Your task to perform on an android device: See recent photos Image 0: 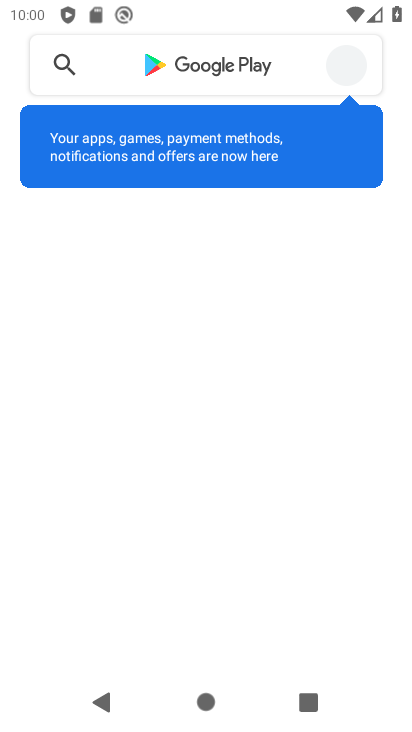
Step 0: press home button
Your task to perform on an android device: See recent photos Image 1: 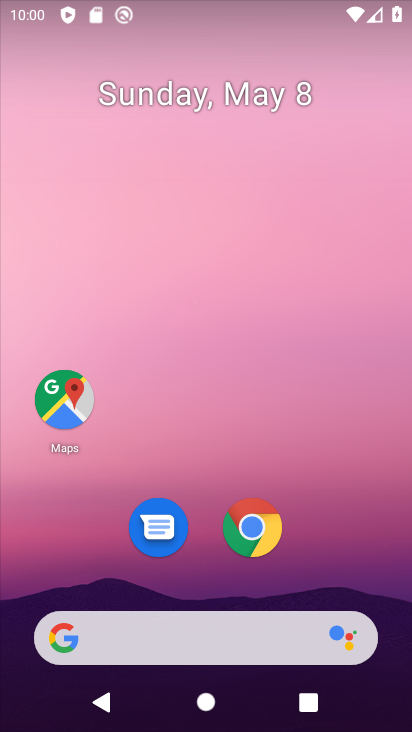
Step 1: drag from (306, 378) to (315, 123)
Your task to perform on an android device: See recent photos Image 2: 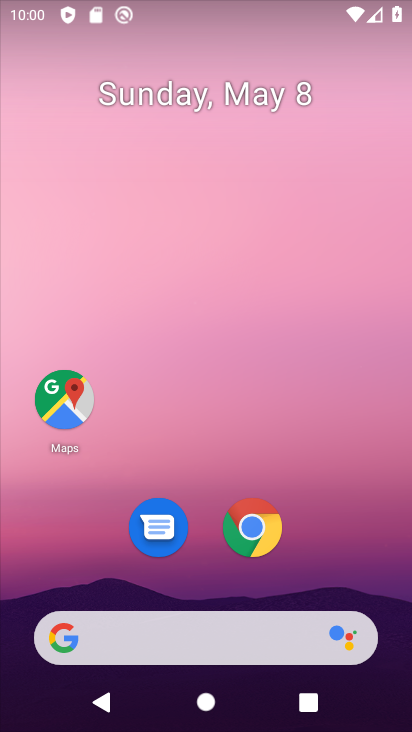
Step 2: drag from (334, 505) to (361, 247)
Your task to perform on an android device: See recent photos Image 3: 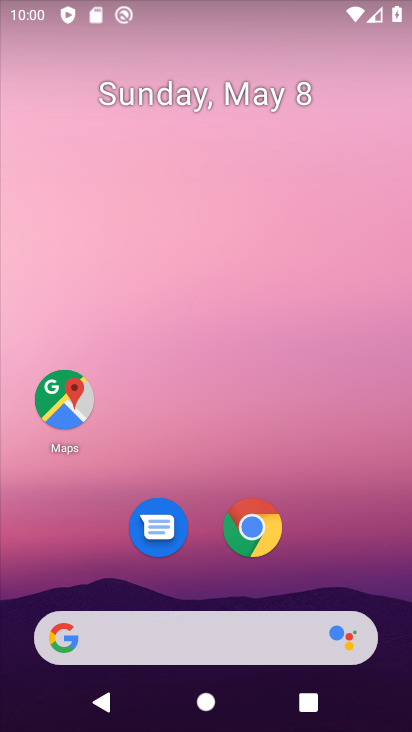
Step 3: drag from (299, 533) to (371, 68)
Your task to perform on an android device: See recent photos Image 4: 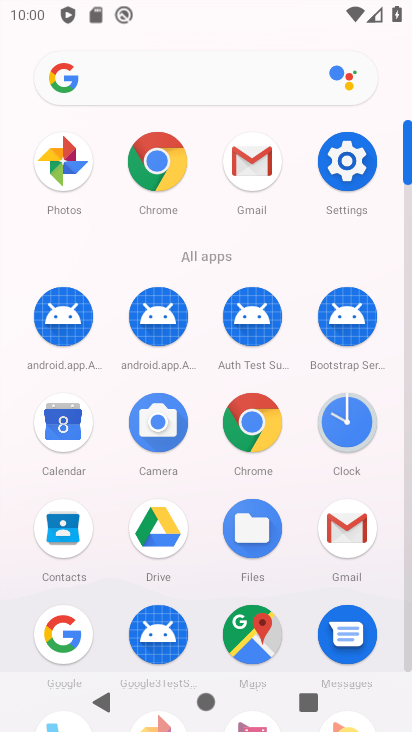
Step 4: click (53, 155)
Your task to perform on an android device: See recent photos Image 5: 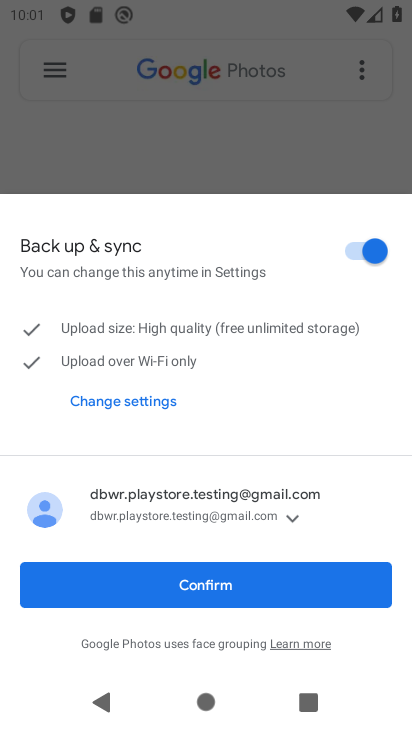
Step 5: click (240, 577)
Your task to perform on an android device: See recent photos Image 6: 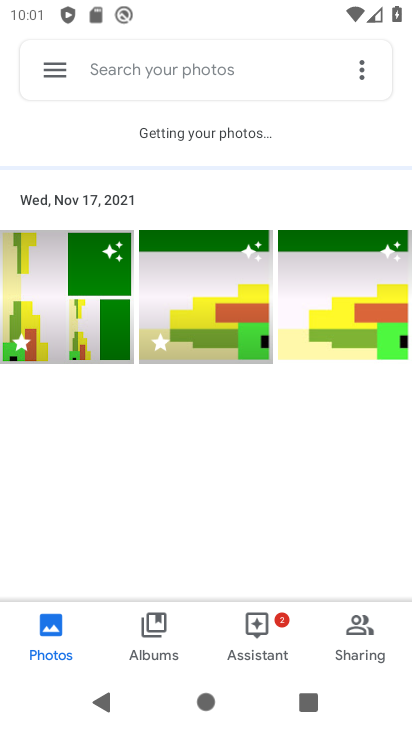
Step 6: task complete